Your task to perform on an android device: Go to settings Image 0: 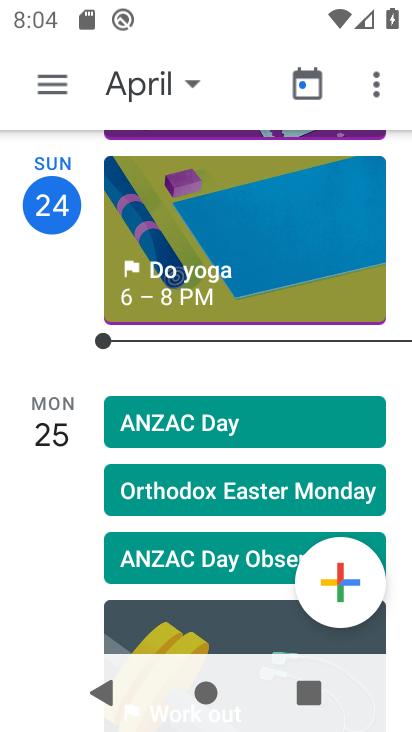
Step 0: press home button
Your task to perform on an android device: Go to settings Image 1: 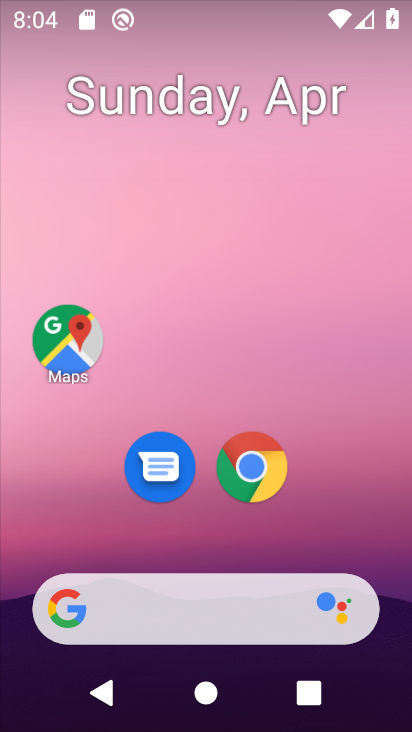
Step 1: drag from (332, 528) to (299, 2)
Your task to perform on an android device: Go to settings Image 2: 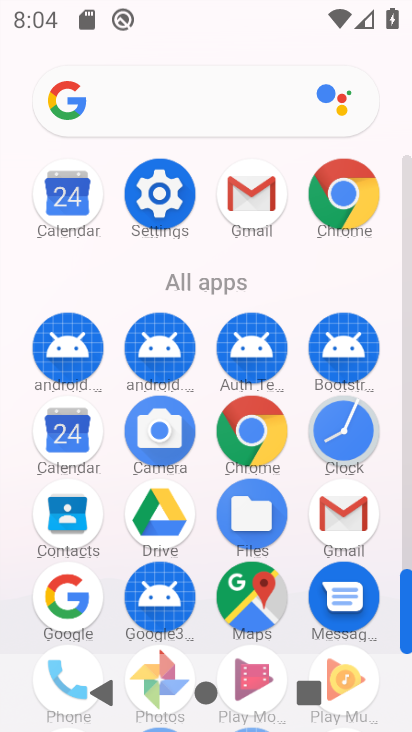
Step 2: click (144, 188)
Your task to perform on an android device: Go to settings Image 3: 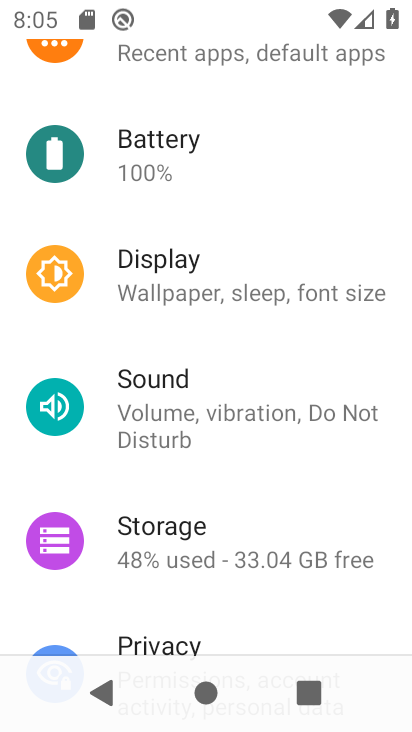
Step 3: task complete